Your task to perform on an android device: toggle javascript in the chrome app Image 0: 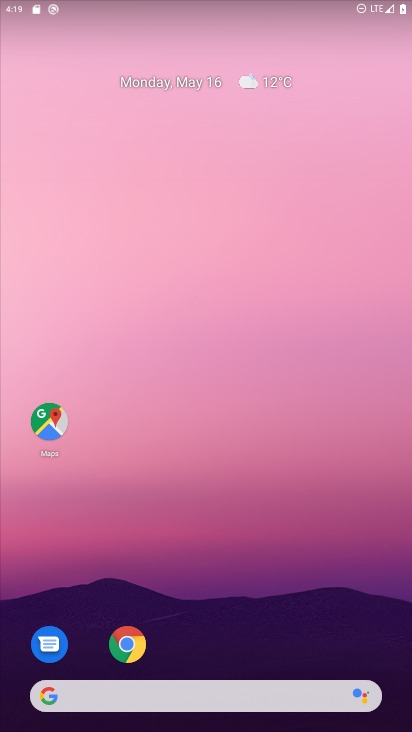
Step 0: drag from (317, 610) to (266, 53)
Your task to perform on an android device: toggle javascript in the chrome app Image 1: 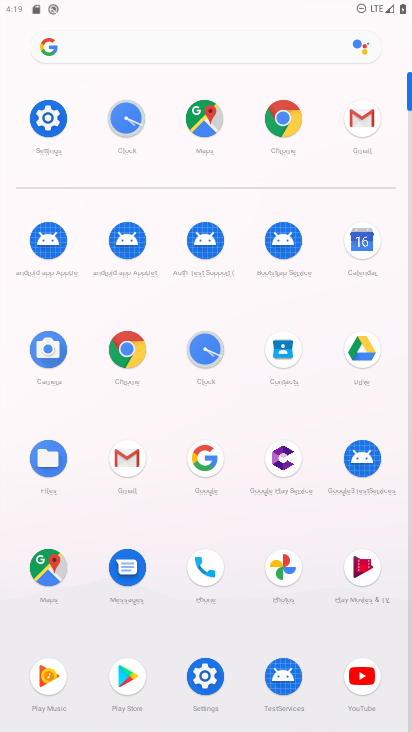
Step 1: click (47, 120)
Your task to perform on an android device: toggle javascript in the chrome app Image 2: 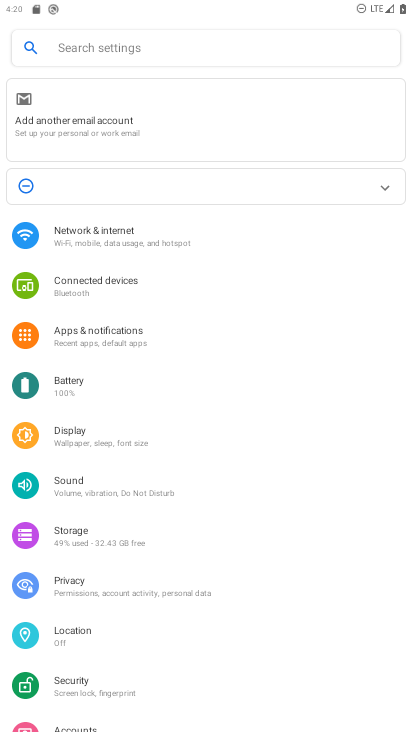
Step 2: press home button
Your task to perform on an android device: toggle javascript in the chrome app Image 3: 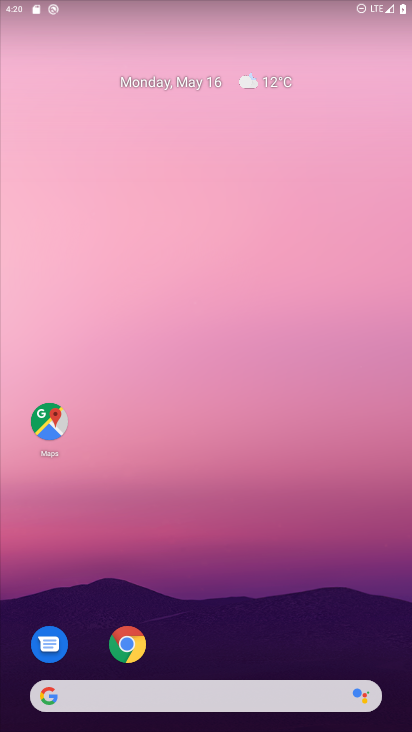
Step 3: click (133, 643)
Your task to perform on an android device: toggle javascript in the chrome app Image 4: 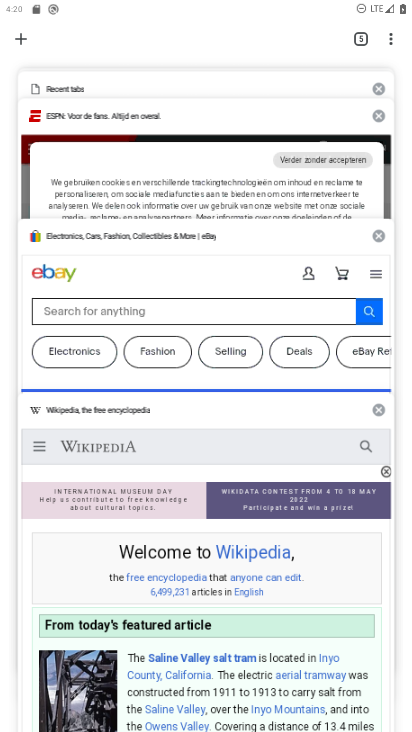
Step 4: click (219, 98)
Your task to perform on an android device: toggle javascript in the chrome app Image 5: 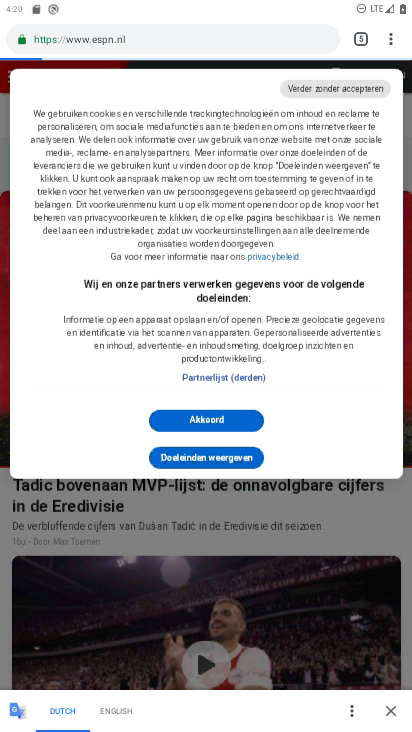
Step 5: click (388, 37)
Your task to perform on an android device: toggle javascript in the chrome app Image 6: 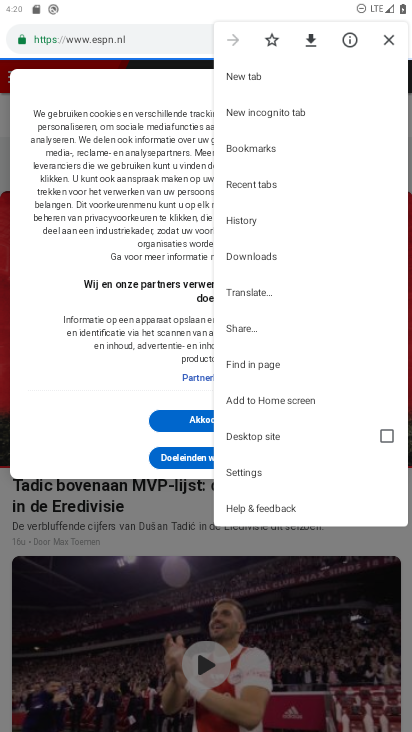
Step 6: click (245, 461)
Your task to perform on an android device: toggle javascript in the chrome app Image 7: 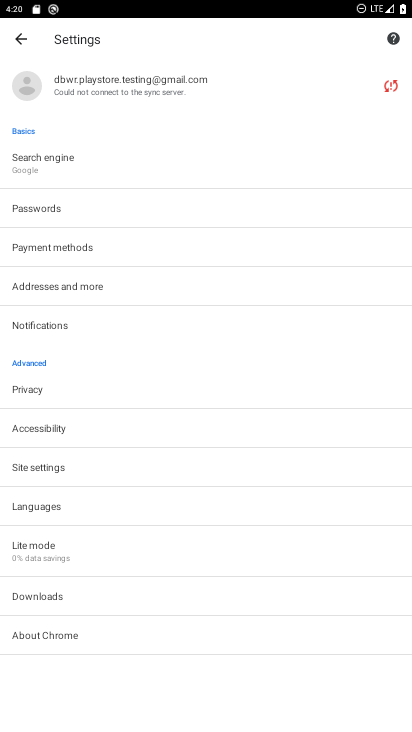
Step 7: drag from (117, 622) to (118, 335)
Your task to perform on an android device: toggle javascript in the chrome app Image 8: 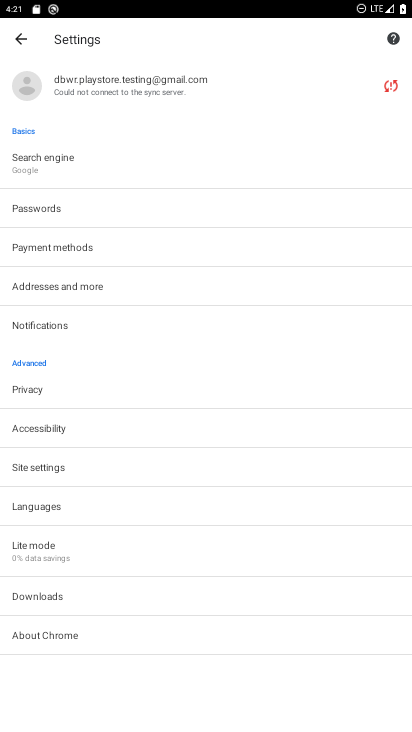
Step 8: click (64, 454)
Your task to perform on an android device: toggle javascript in the chrome app Image 9: 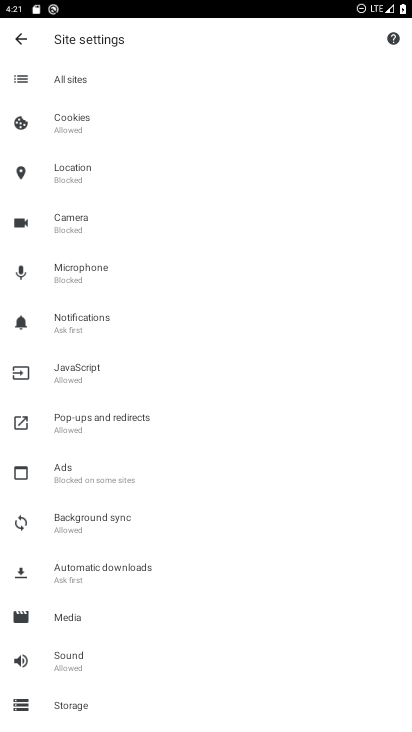
Step 9: click (88, 375)
Your task to perform on an android device: toggle javascript in the chrome app Image 10: 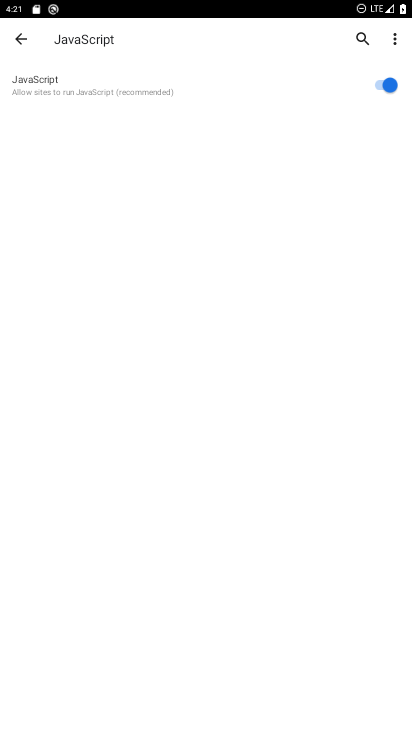
Step 10: click (385, 85)
Your task to perform on an android device: toggle javascript in the chrome app Image 11: 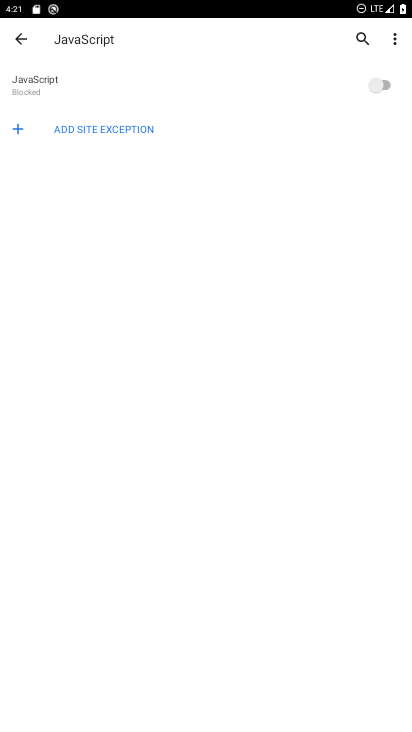
Step 11: task complete